Your task to perform on an android device: Empty the shopping cart on bestbuy.com. Add acer nitro to the cart on bestbuy.com Image 0: 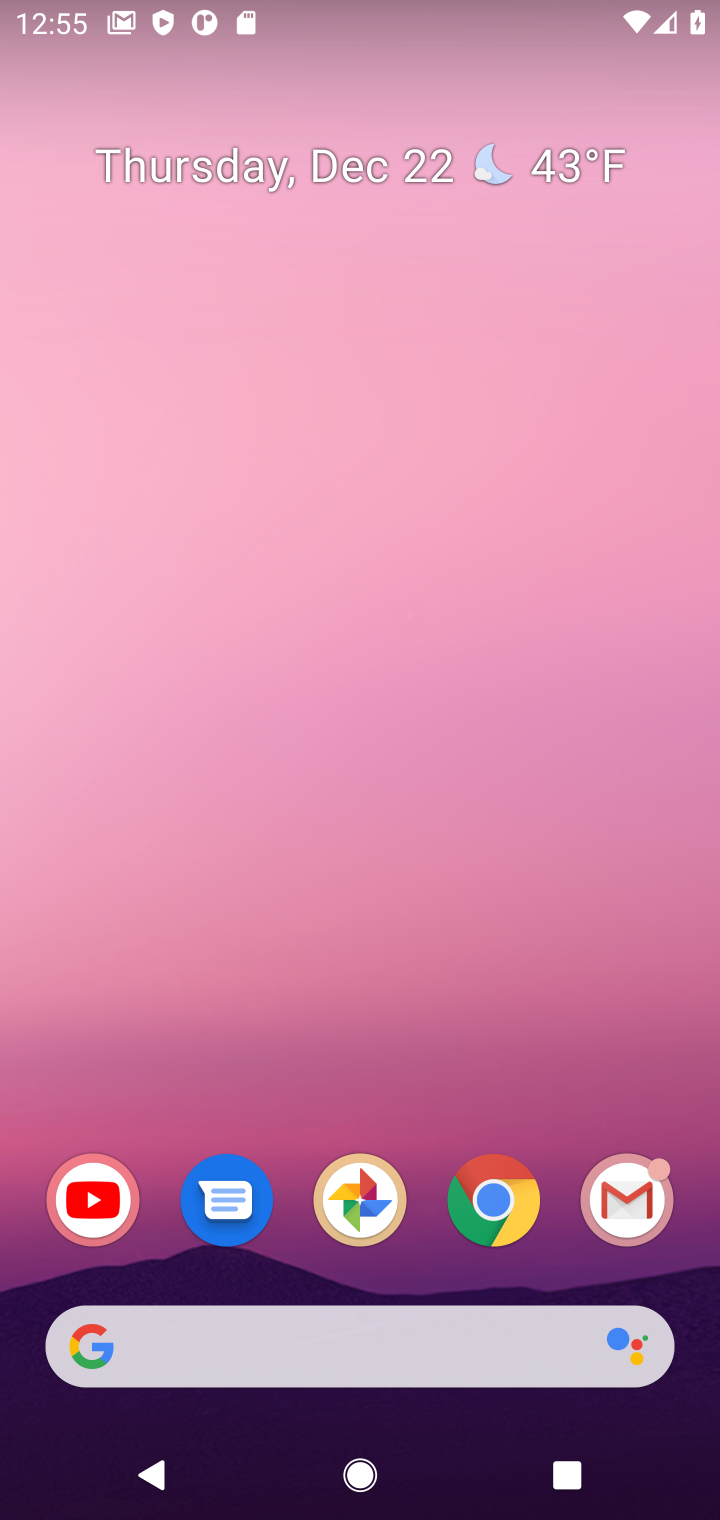
Step 0: click (495, 1208)
Your task to perform on an android device: Empty the shopping cart on bestbuy.com. Add acer nitro to the cart on bestbuy.com Image 1: 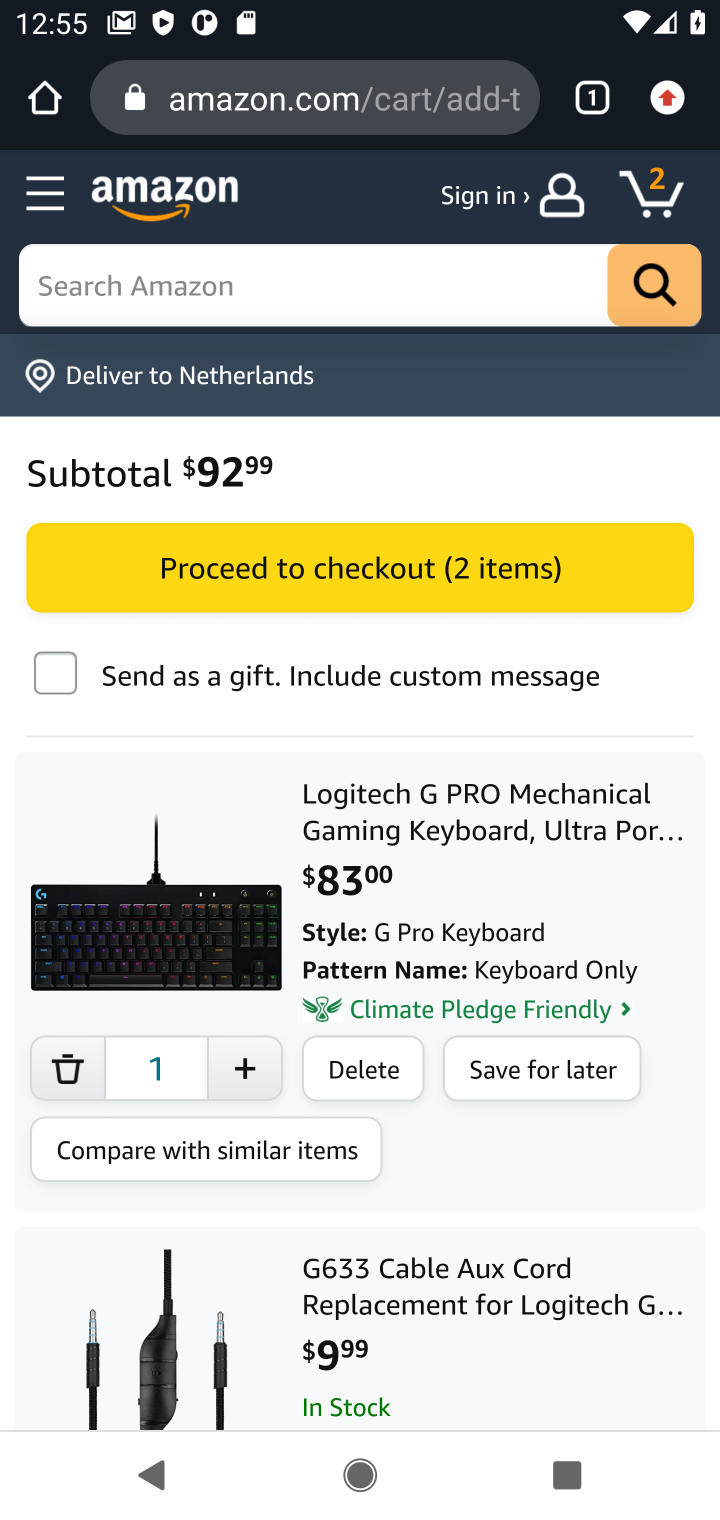
Step 1: click (276, 94)
Your task to perform on an android device: Empty the shopping cart on bestbuy.com. Add acer nitro to the cart on bestbuy.com Image 2: 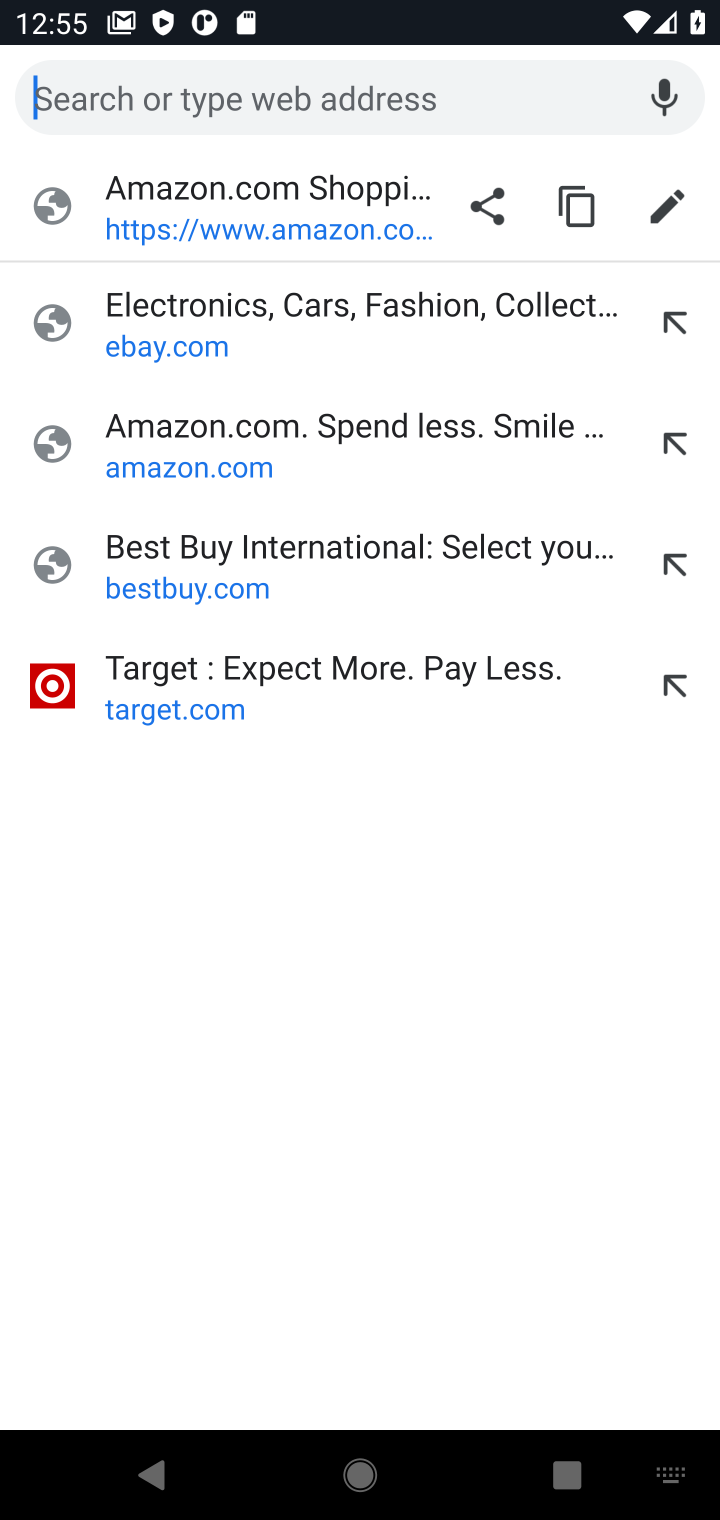
Step 2: click (186, 560)
Your task to perform on an android device: Empty the shopping cart on bestbuy.com. Add acer nitro to the cart on bestbuy.com Image 3: 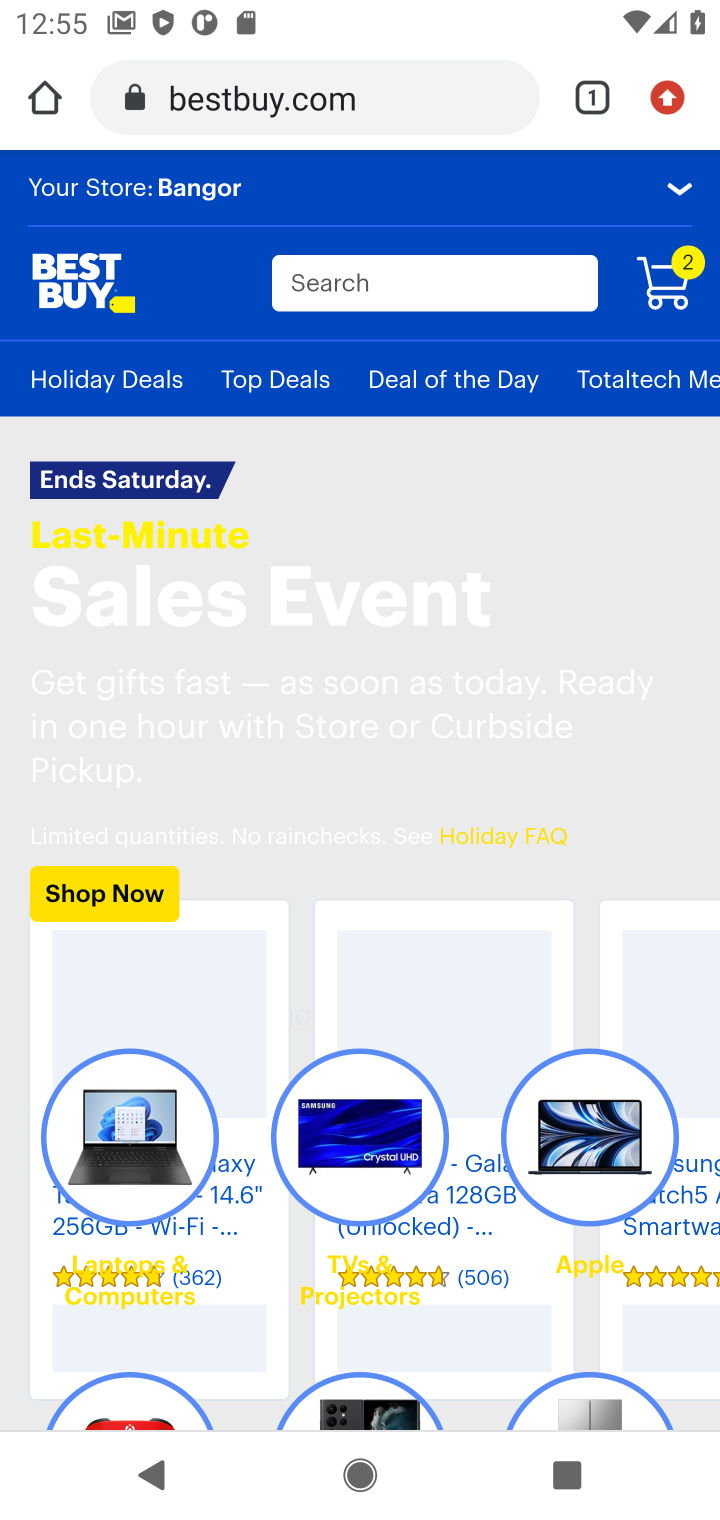
Step 3: click (660, 299)
Your task to perform on an android device: Empty the shopping cart on bestbuy.com. Add acer nitro to the cart on bestbuy.com Image 4: 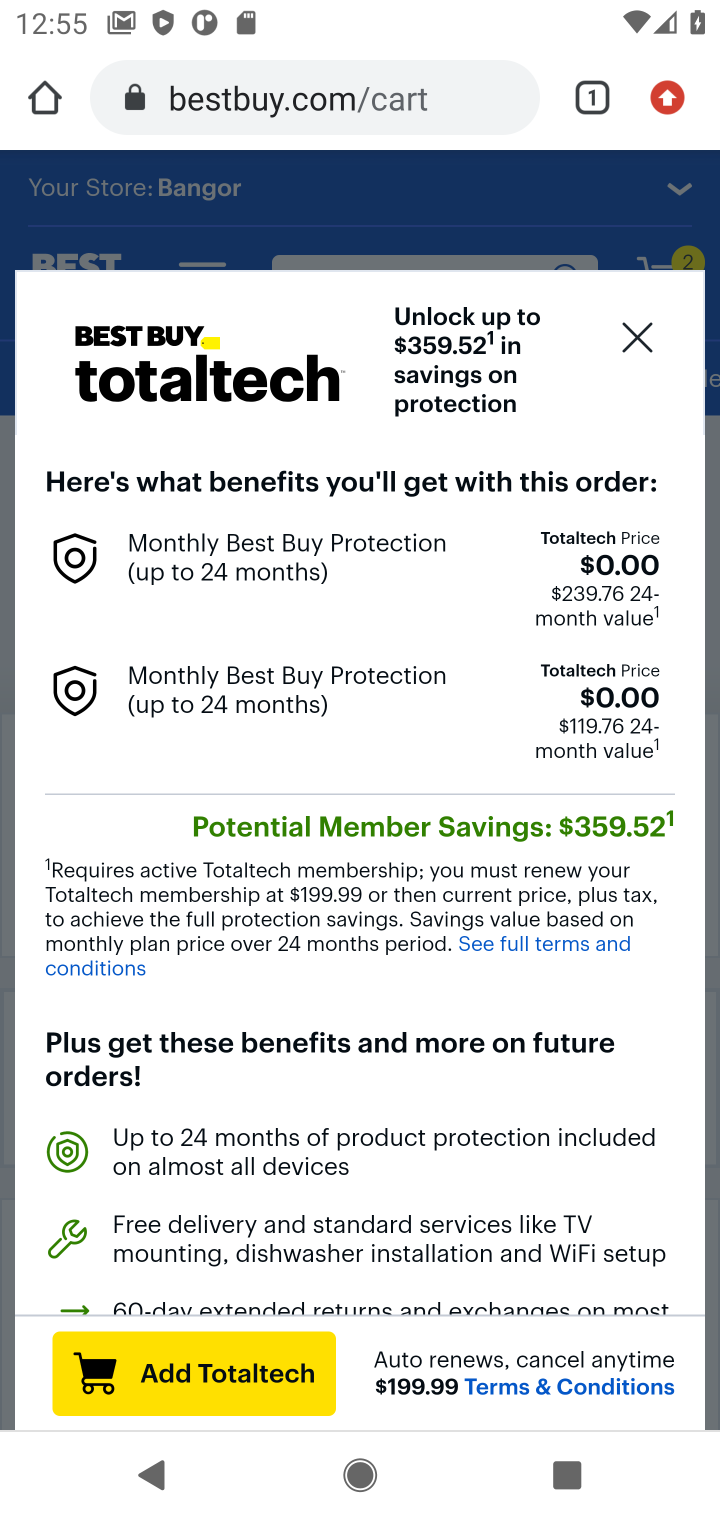
Step 4: click (637, 338)
Your task to perform on an android device: Empty the shopping cart on bestbuy.com. Add acer nitro to the cart on bestbuy.com Image 5: 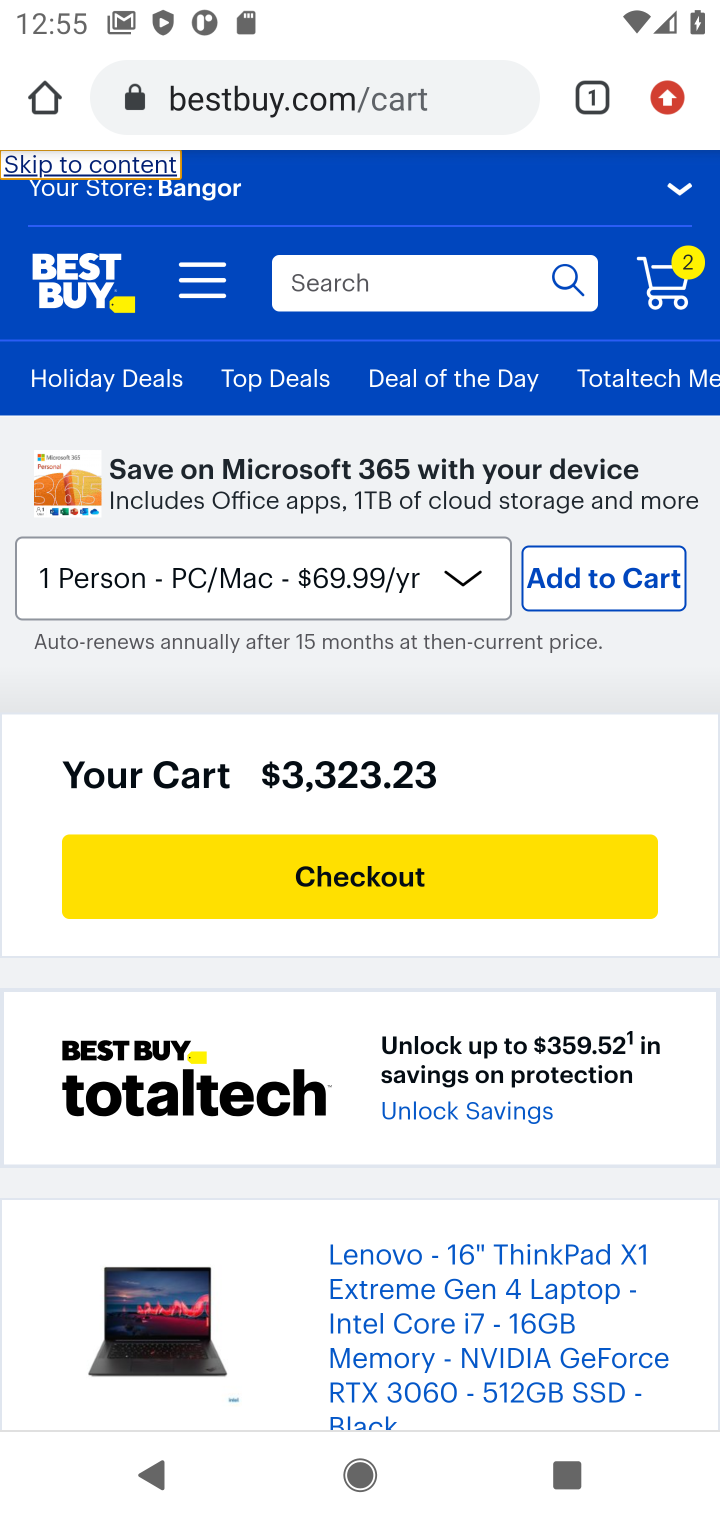
Step 5: drag from (344, 805) to (392, 282)
Your task to perform on an android device: Empty the shopping cart on bestbuy.com. Add acer nitro to the cart on bestbuy.com Image 6: 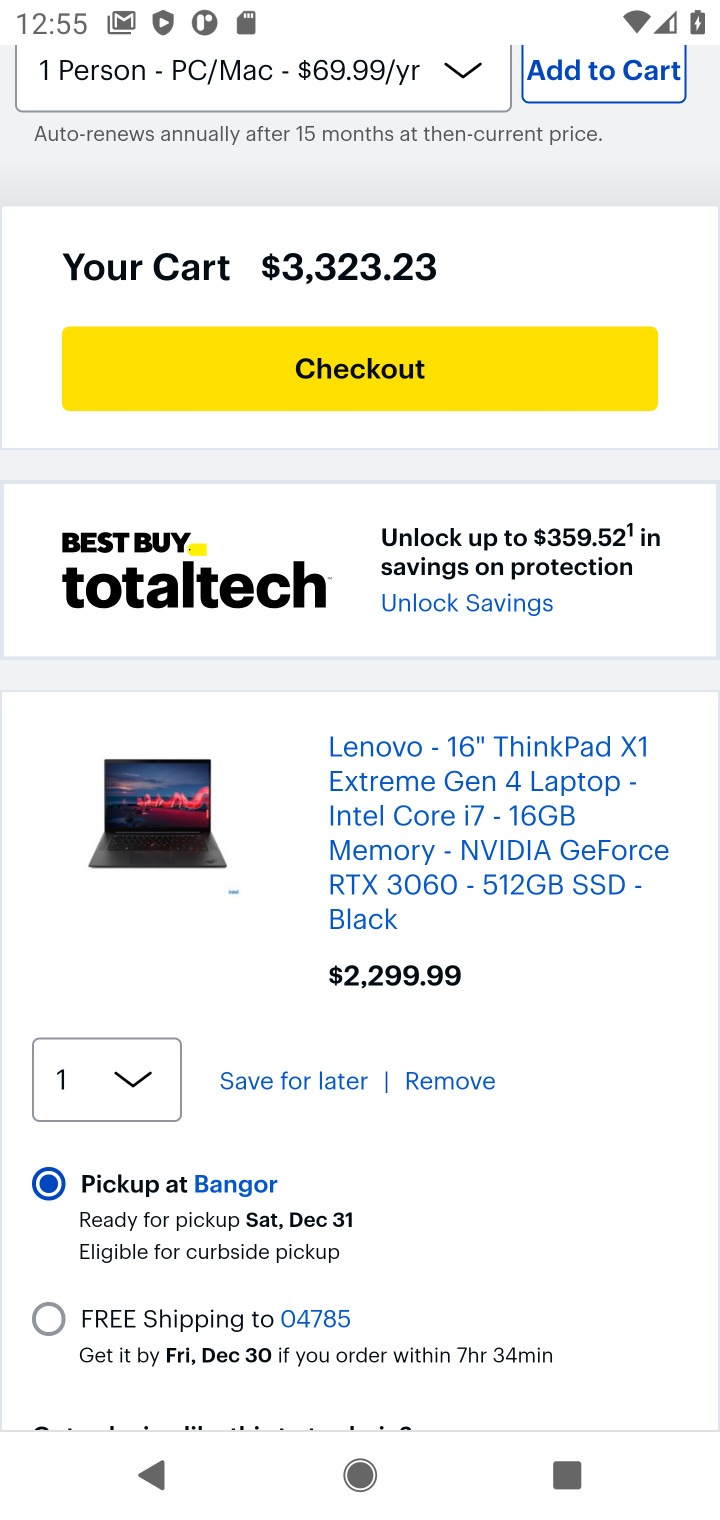
Step 6: click (435, 1088)
Your task to perform on an android device: Empty the shopping cart on bestbuy.com. Add acer nitro to the cart on bestbuy.com Image 7: 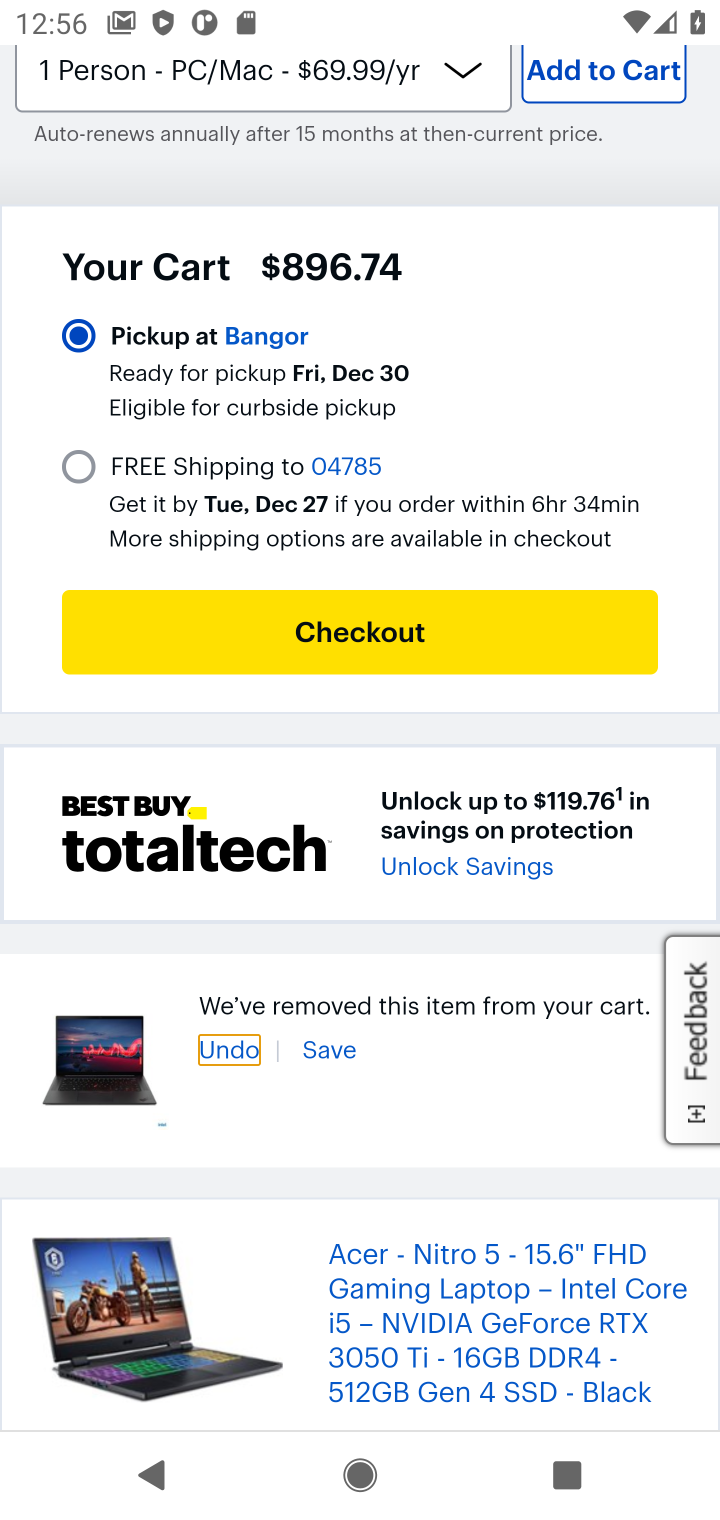
Step 7: drag from (330, 1097) to (364, 563)
Your task to perform on an android device: Empty the shopping cart on bestbuy.com. Add acer nitro to the cart on bestbuy.com Image 8: 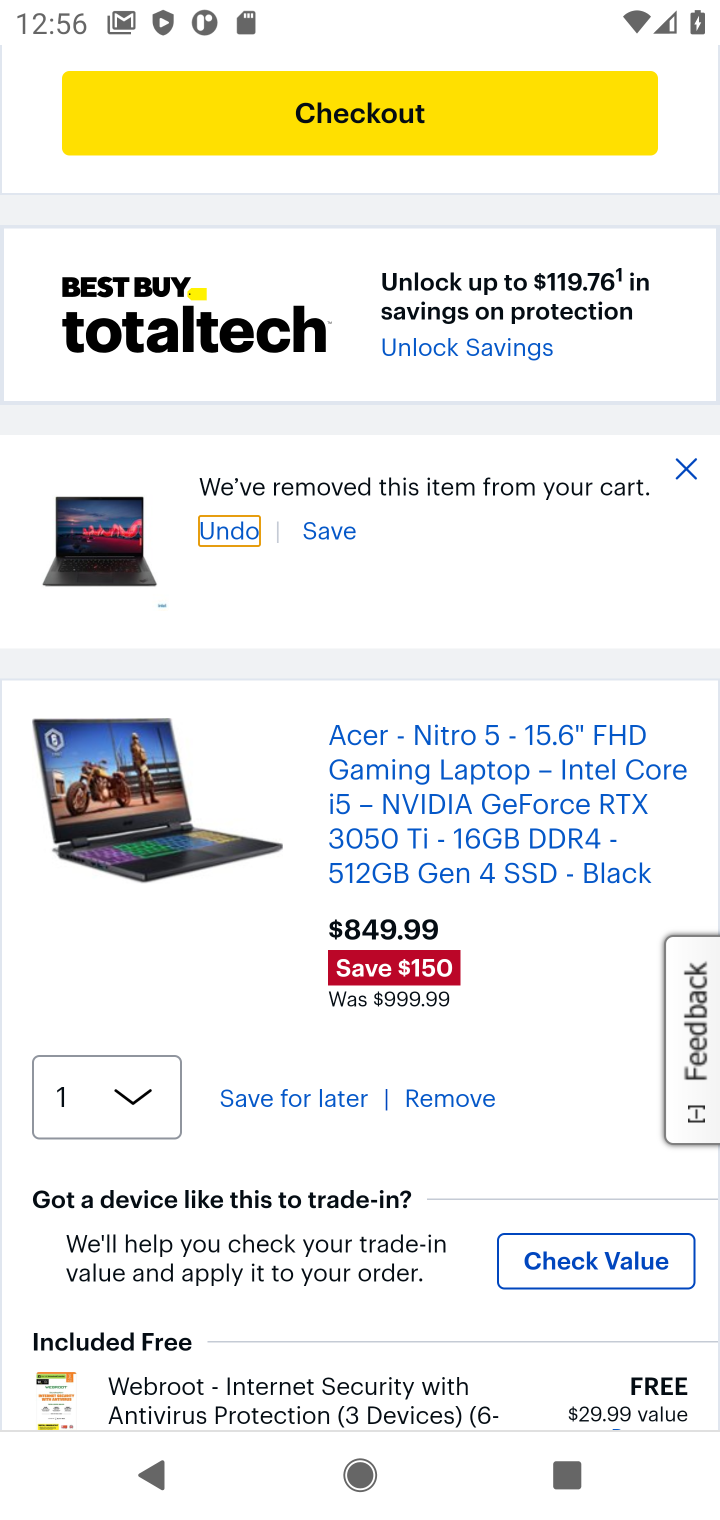
Step 8: click (439, 1102)
Your task to perform on an android device: Empty the shopping cart on bestbuy.com. Add acer nitro to the cart on bestbuy.com Image 9: 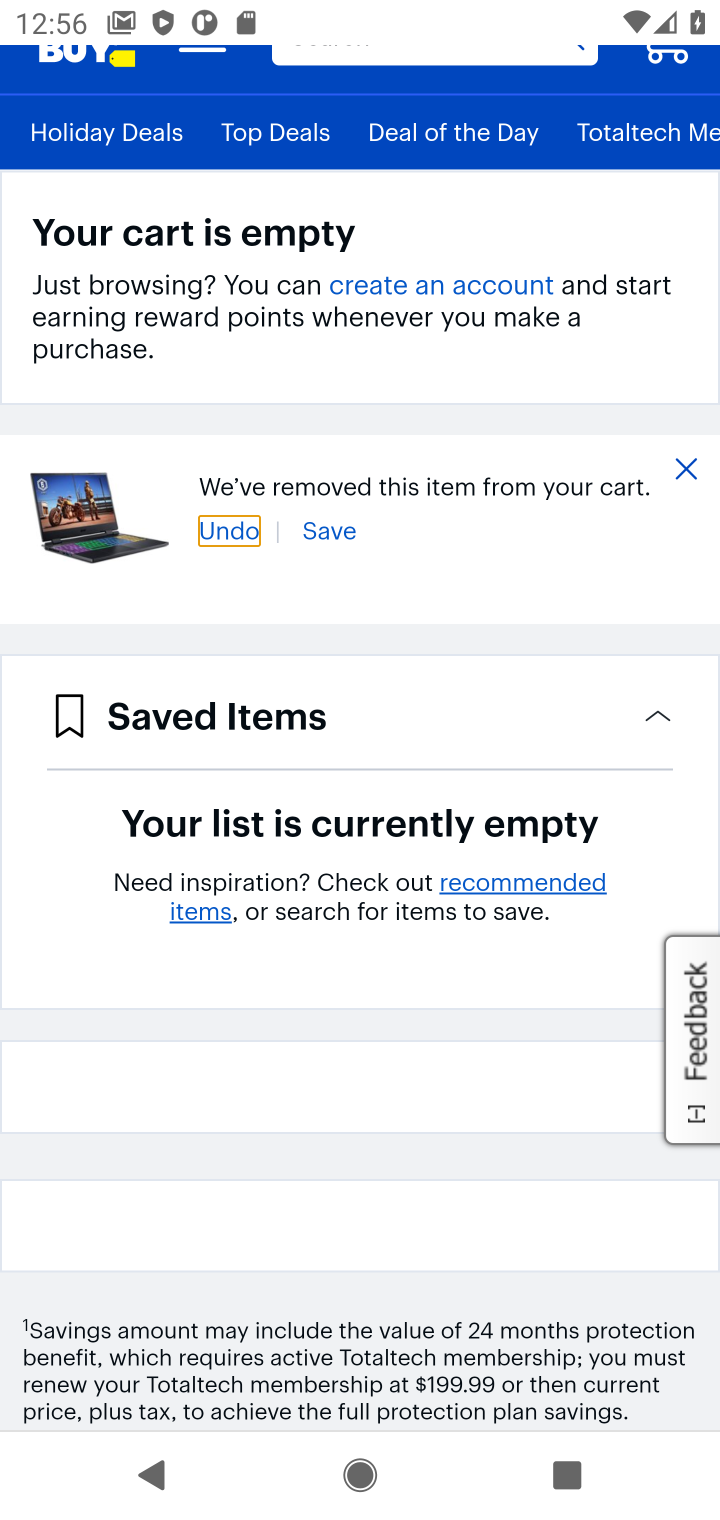
Step 9: drag from (435, 395) to (377, 767)
Your task to perform on an android device: Empty the shopping cart on bestbuy.com. Add acer nitro to the cart on bestbuy.com Image 10: 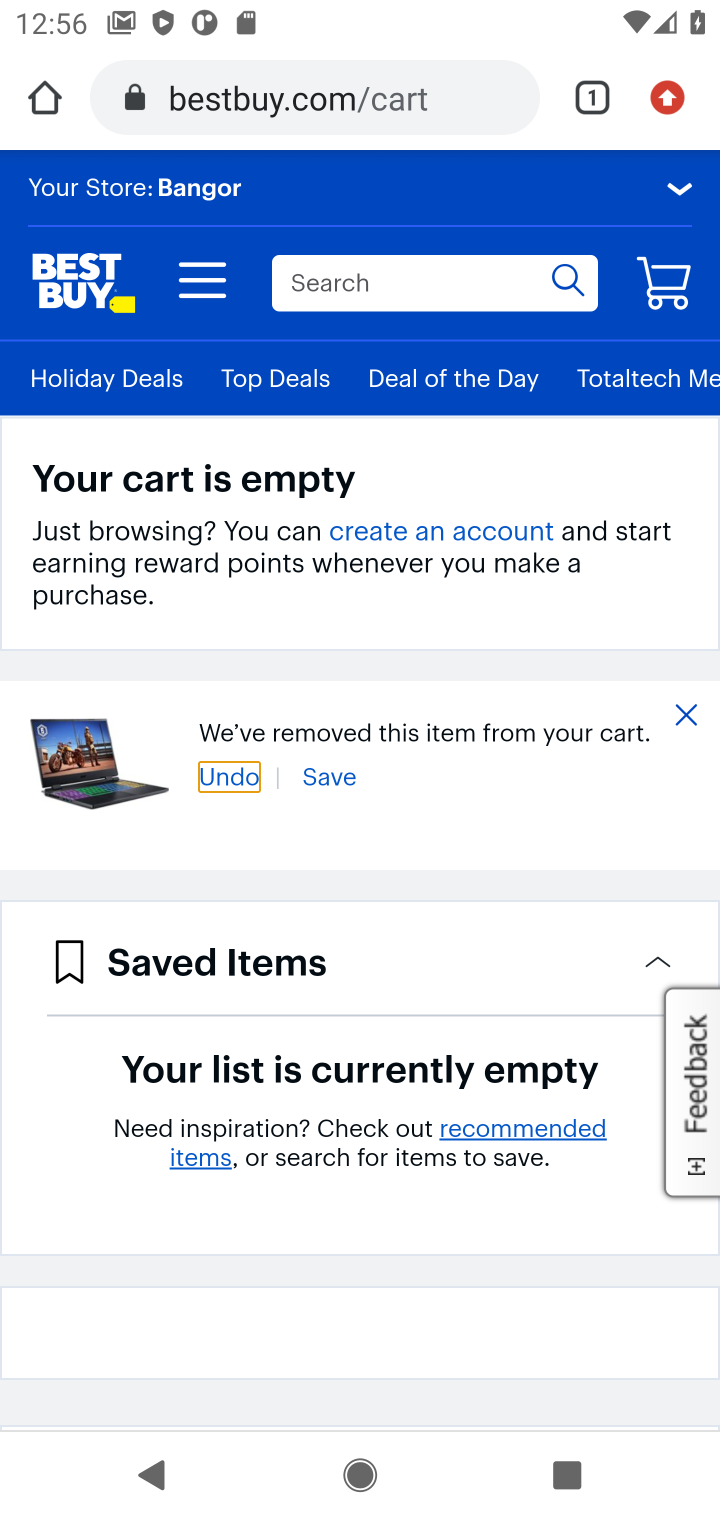
Step 10: click (306, 283)
Your task to perform on an android device: Empty the shopping cart on bestbuy.com. Add acer nitro to the cart on bestbuy.com Image 11: 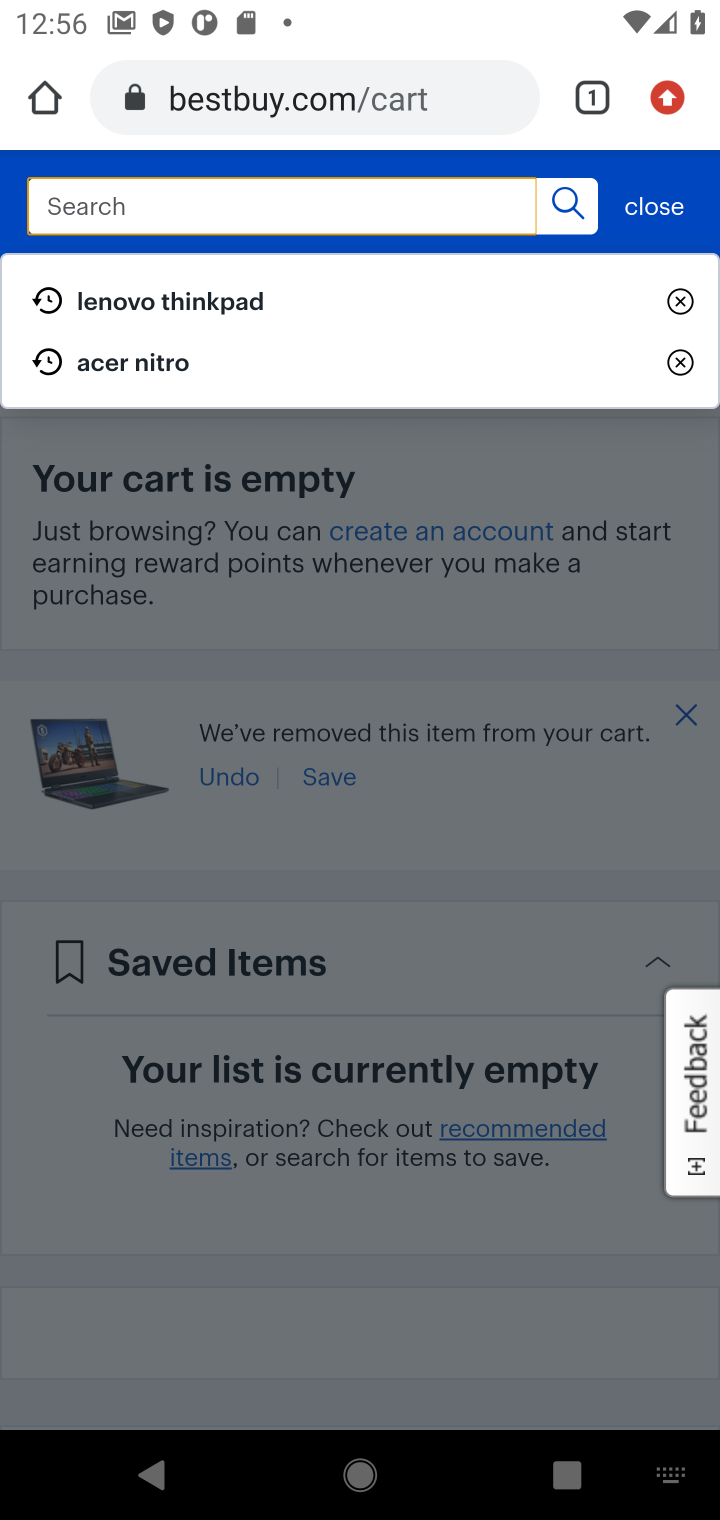
Step 11: type "acer nitro"
Your task to perform on an android device: Empty the shopping cart on bestbuy.com. Add acer nitro to the cart on bestbuy.com Image 12: 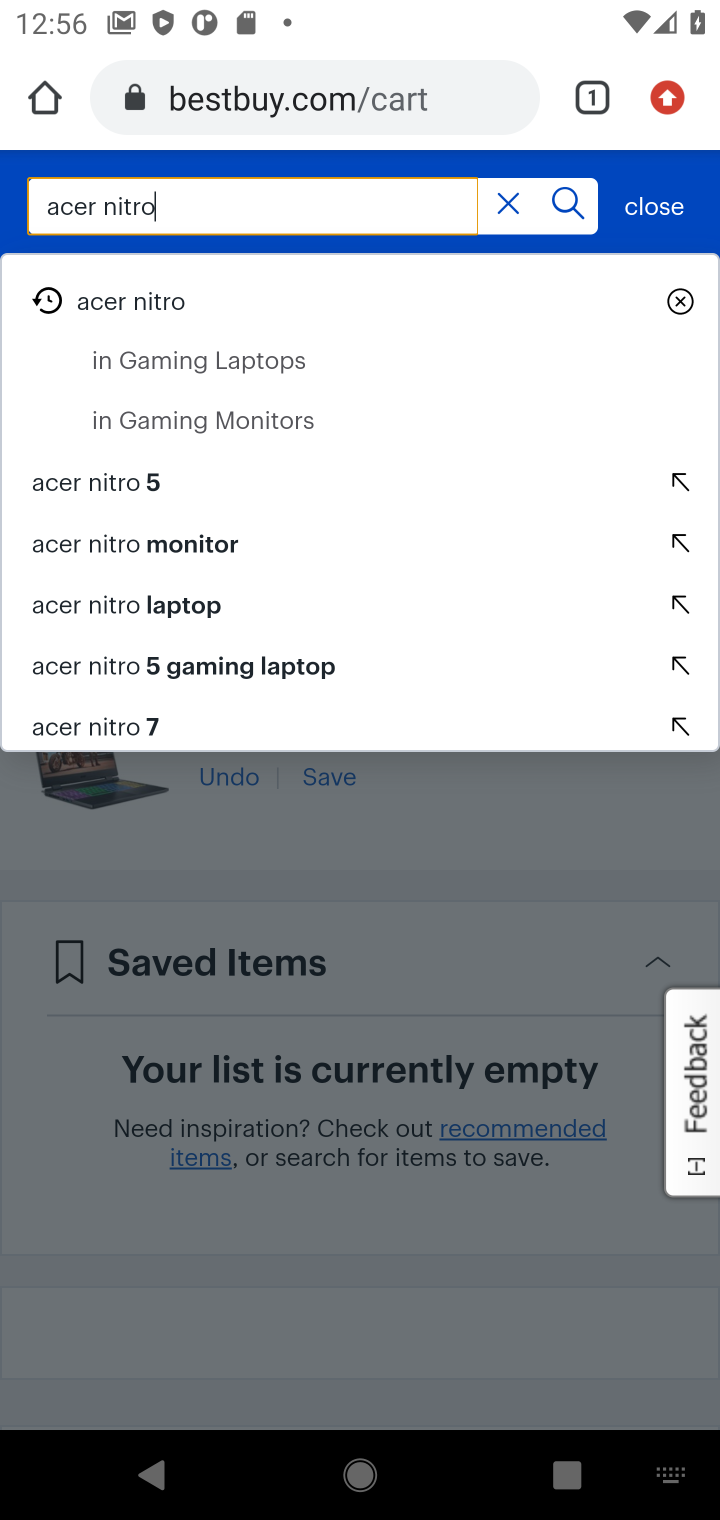
Step 12: click (131, 305)
Your task to perform on an android device: Empty the shopping cart on bestbuy.com. Add acer nitro to the cart on bestbuy.com Image 13: 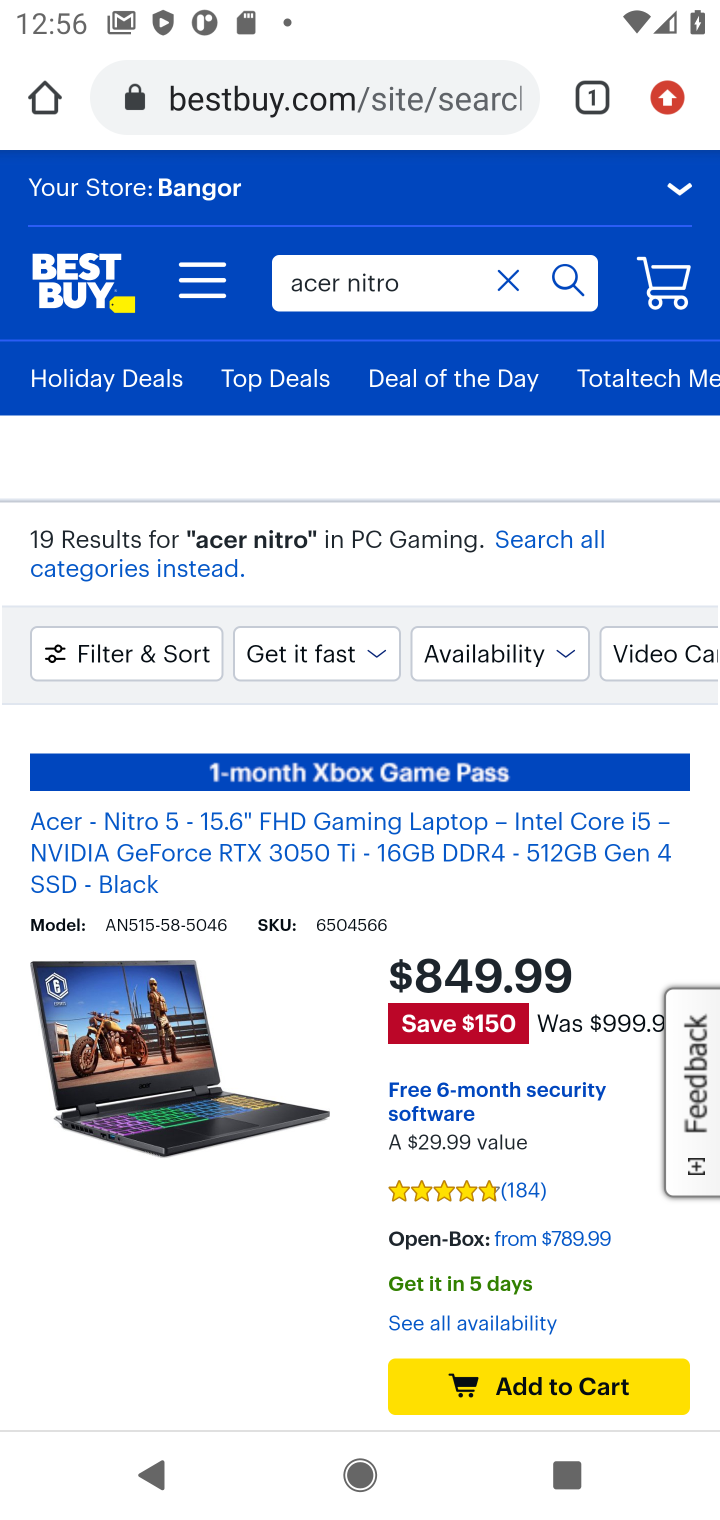
Step 13: click (552, 1388)
Your task to perform on an android device: Empty the shopping cart on bestbuy.com. Add acer nitro to the cart on bestbuy.com Image 14: 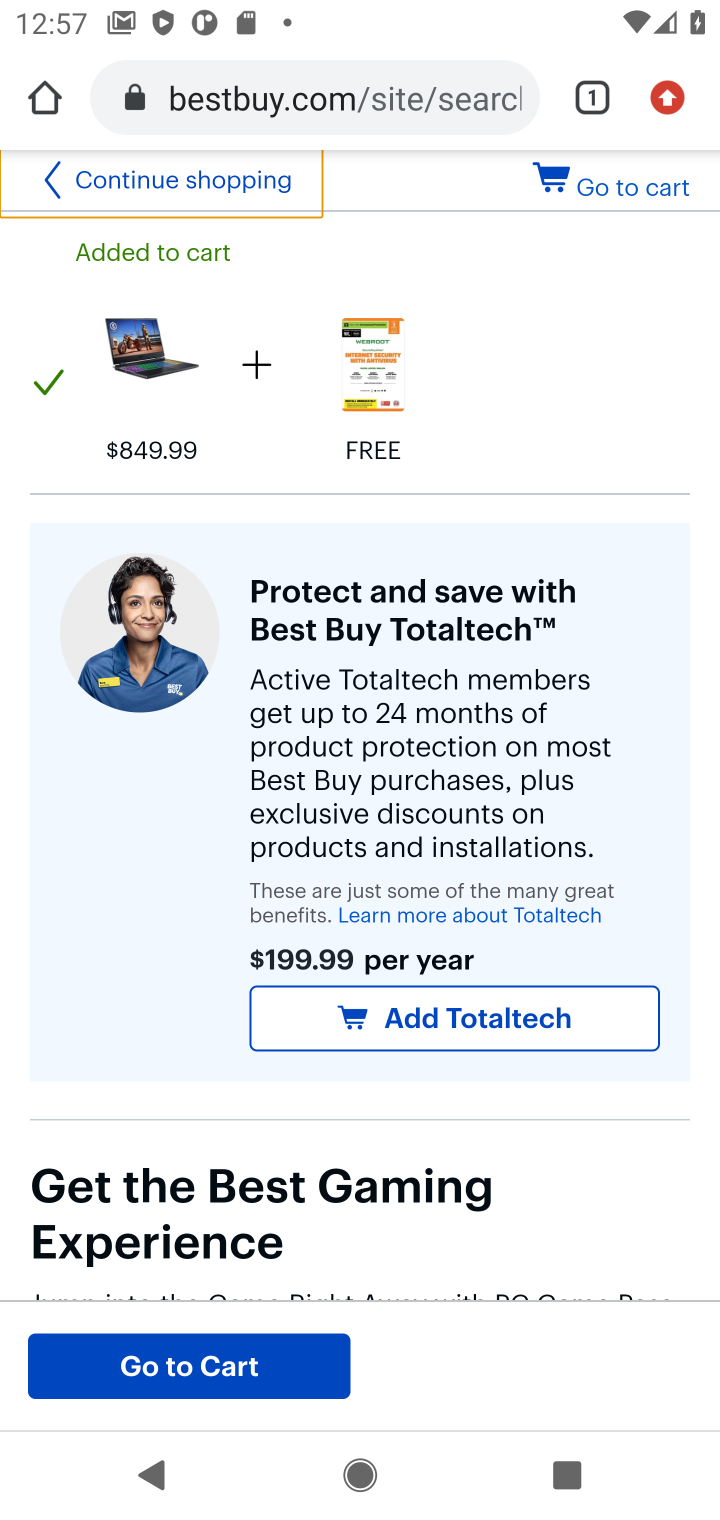
Step 14: task complete